Your task to perform on an android device: Go to settings Image 0: 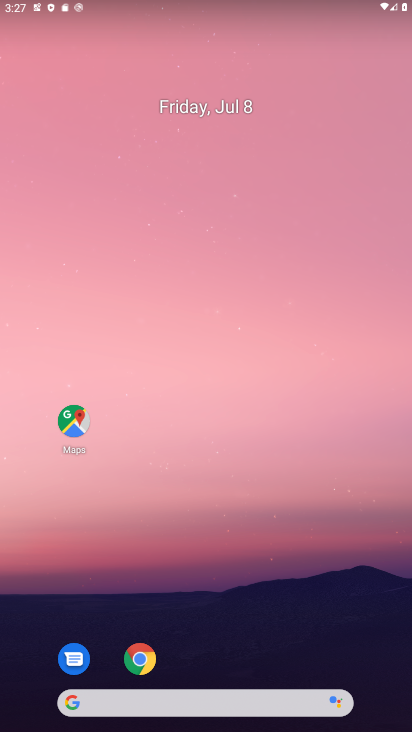
Step 0: drag from (216, 653) to (184, 202)
Your task to perform on an android device: Go to settings Image 1: 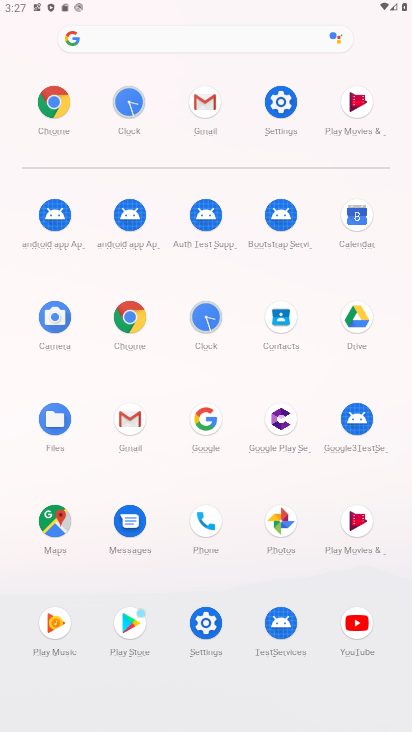
Step 1: click (297, 100)
Your task to perform on an android device: Go to settings Image 2: 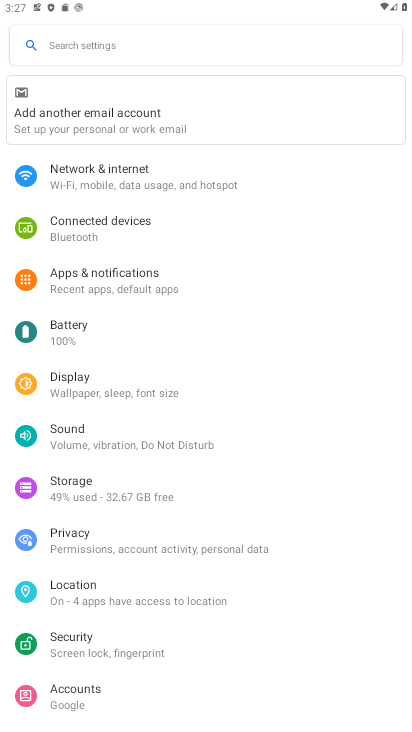
Step 2: task complete